Your task to perform on an android device: set the timer Image 0: 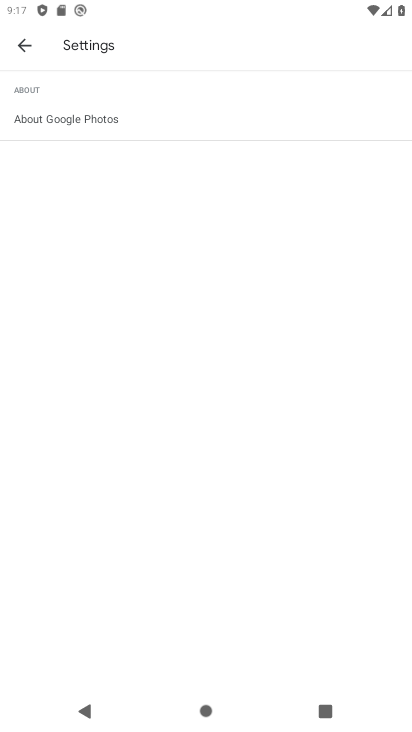
Step 0: press home button
Your task to perform on an android device: set the timer Image 1: 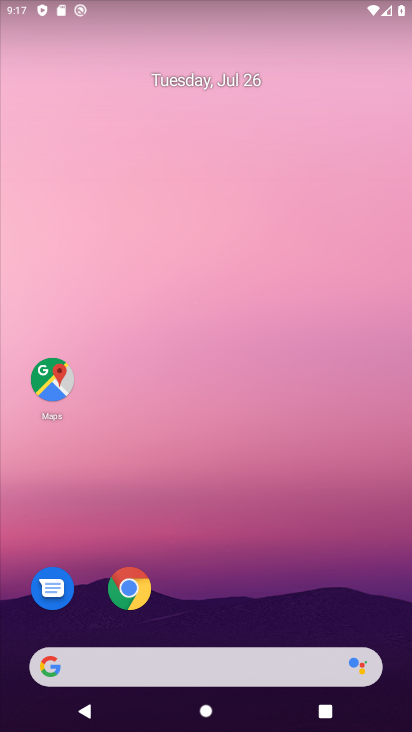
Step 1: drag from (239, 619) to (219, 29)
Your task to perform on an android device: set the timer Image 2: 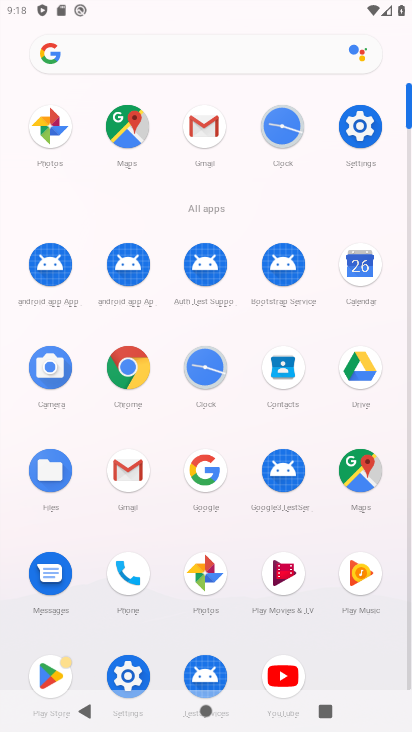
Step 2: click (281, 129)
Your task to perform on an android device: set the timer Image 3: 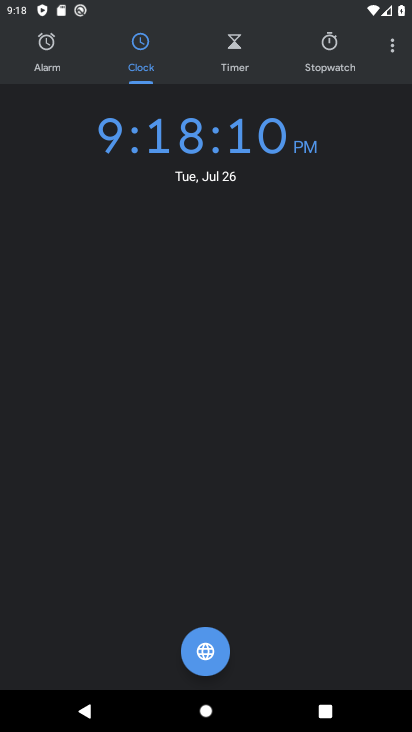
Step 3: click (234, 64)
Your task to perform on an android device: set the timer Image 4: 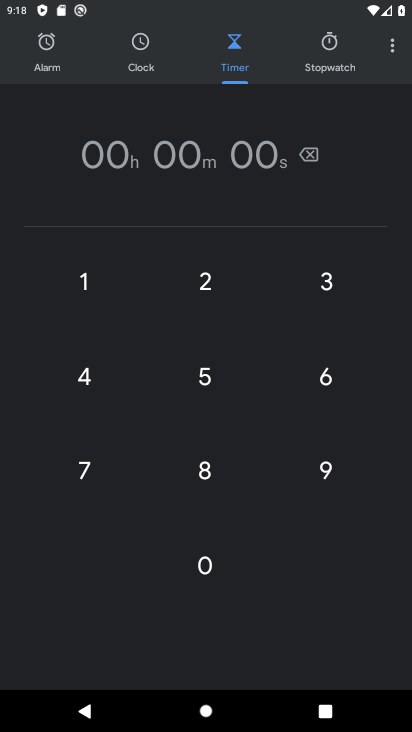
Step 4: click (92, 289)
Your task to perform on an android device: set the timer Image 5: 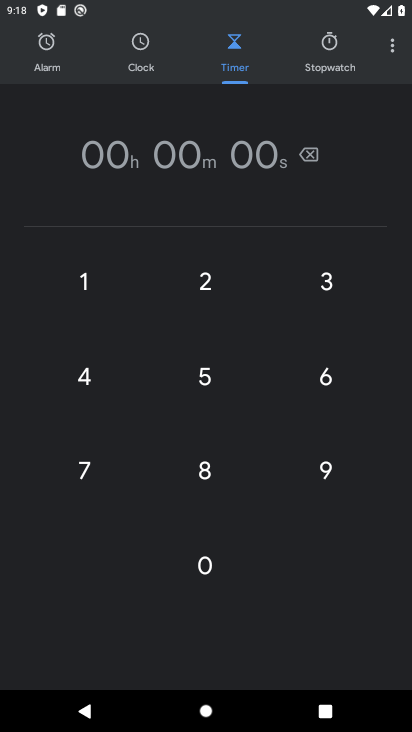
Step 5: click (92, 289)
Your task to perform on an android device: set the timer Image 6: 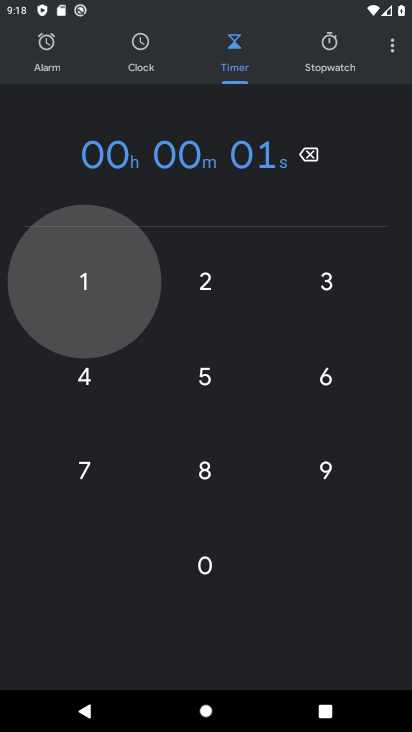
Step 6: click (92, 289)
Your task to perform on an android device: set the timer Image 7: 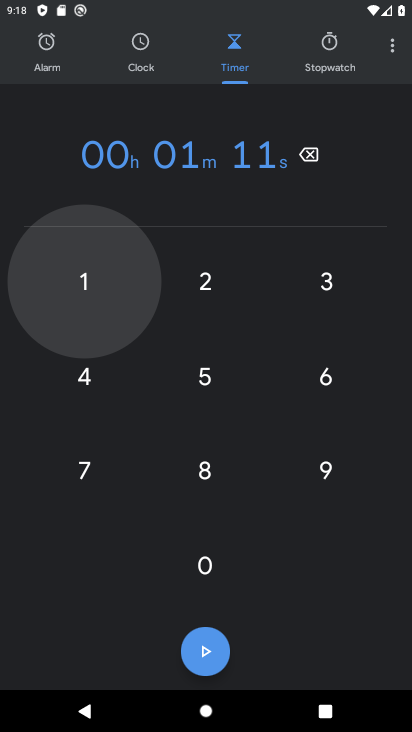
Step 7: click (92, 289)
Your task to perform on an android device: set the timer Image 8: 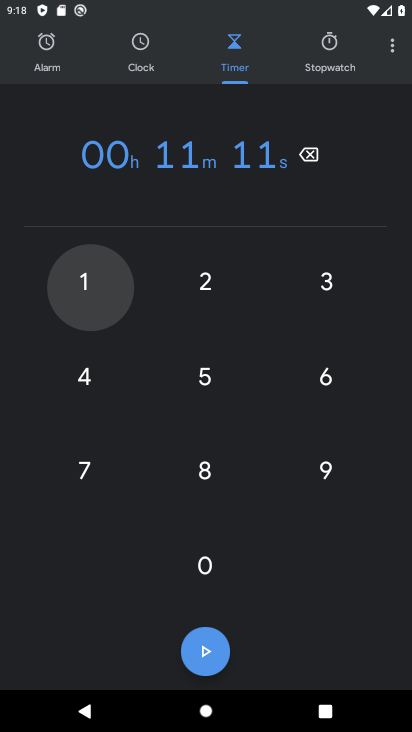
Step 8: click (92, 289)
Your task to perform on an android device: set the timer Image 9: 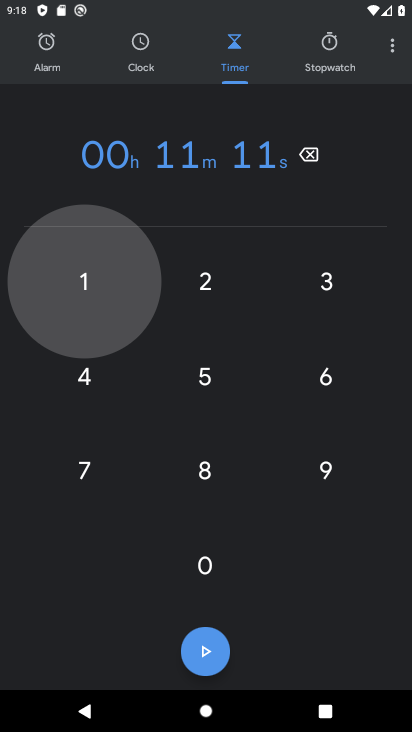
Step 9: click (92, 289)
Your task to perform on an android device: set the timer Image 10: 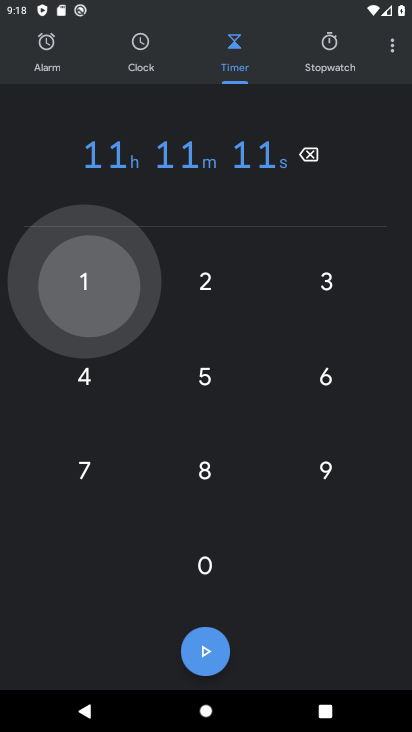
Step 10: click (92, 289)
Your task to perform on an android device: set the timer Image 11: 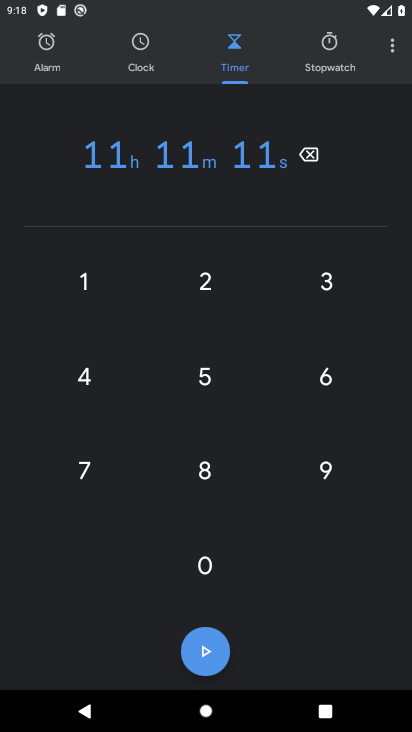
Step 11: click (92, 289)
Your task to perform on an android device: set the timer Image 12: 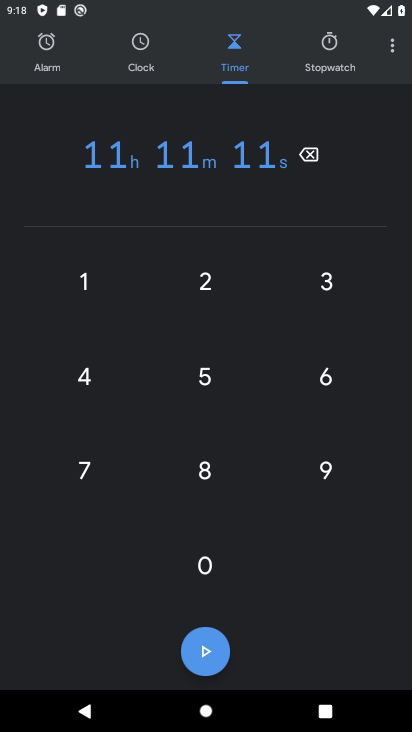
Step 12: click (215, 665)
Your task to perform on an android device: set the timer Image 13: 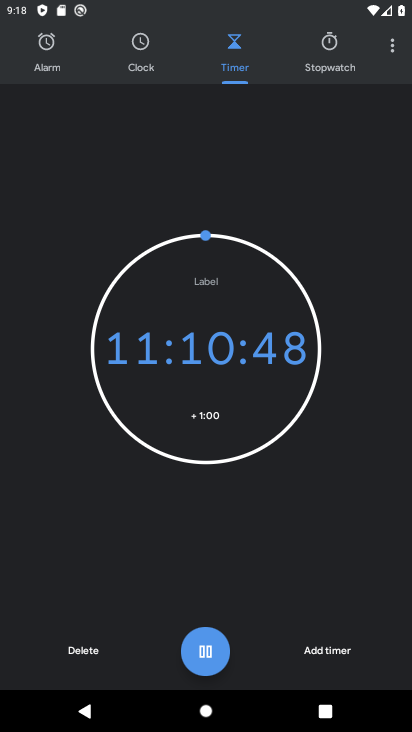
Step 13: task complete